Your task to perform on an android device: turn on the 12-hour format for clock Image 0: 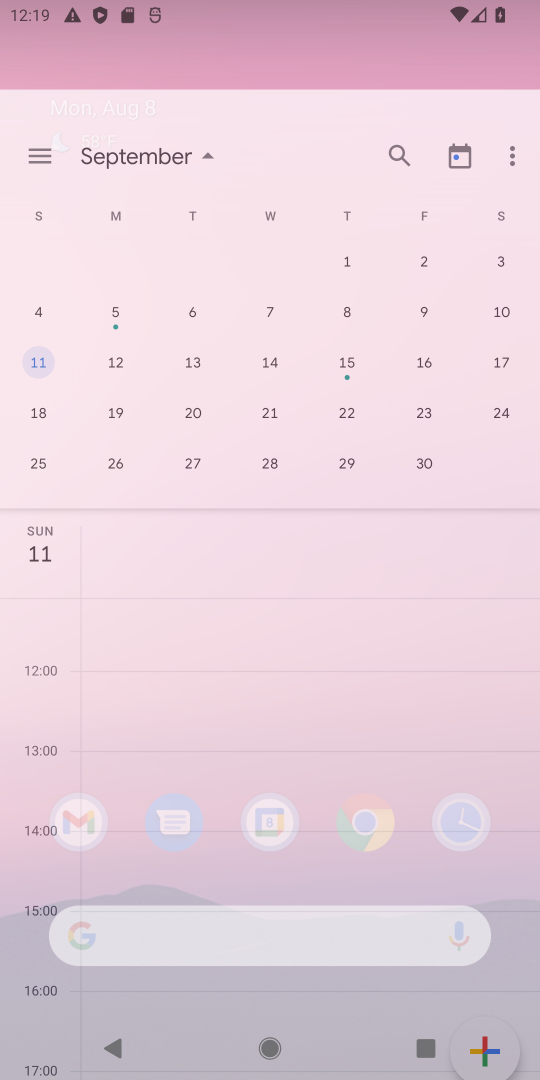
Step 0: press home button
Your task to perform on an android device: turn on the 12-hour format for clock Image 1: 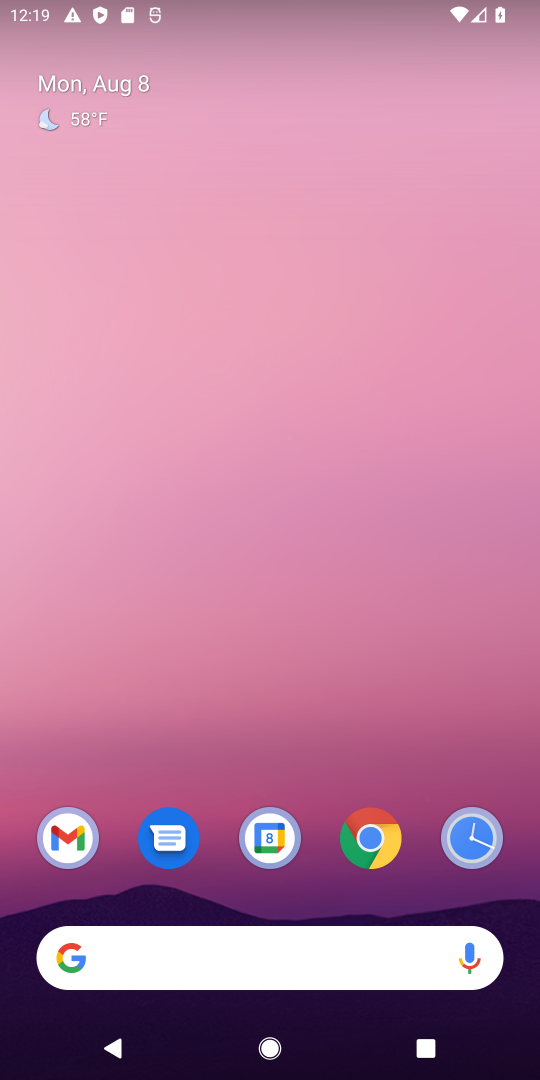
Step 1: drag from (374, 784) to (460, 168)
Your task to perform on an android device: turn on the 12-hour format for clock Image 2: 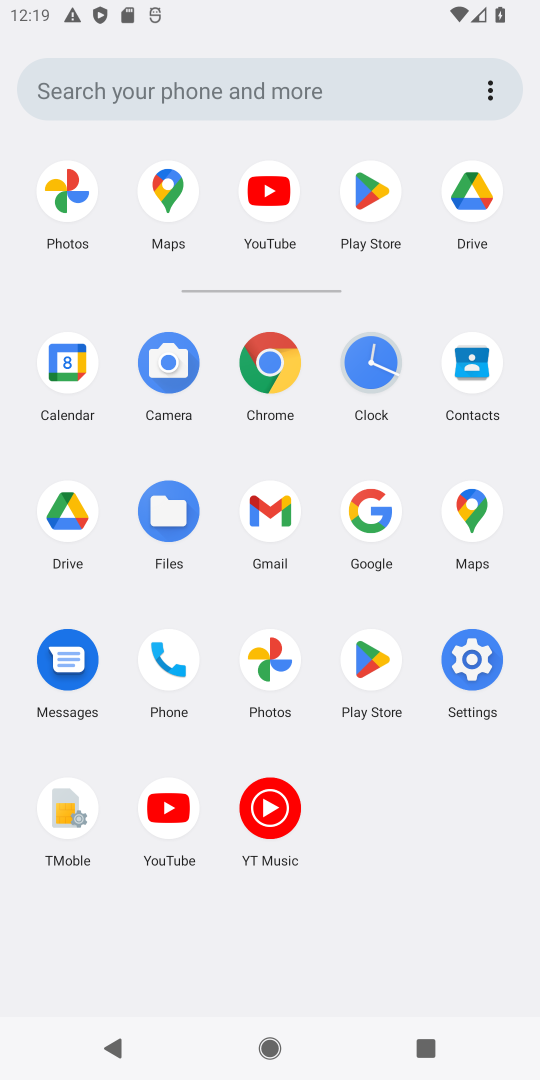
Step 2: click (476, 665)
Your task to perform on an android device: turn on the 12-hour format for clock Image 3: 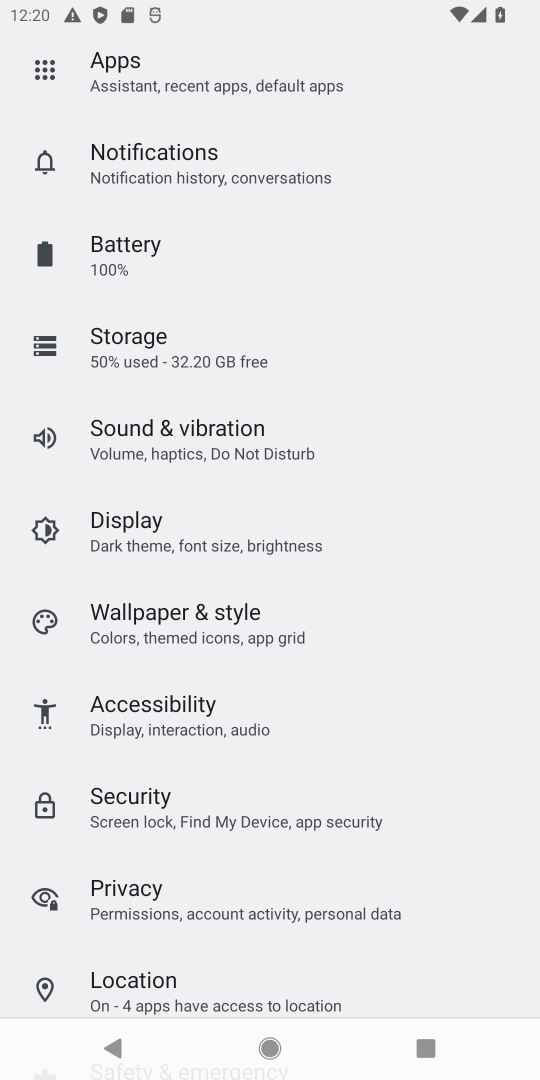
Step 3: drag from (447, 895) to (369, 334)
Your task to perform on an android device: turn on the 12-hour format for clock Image 4: 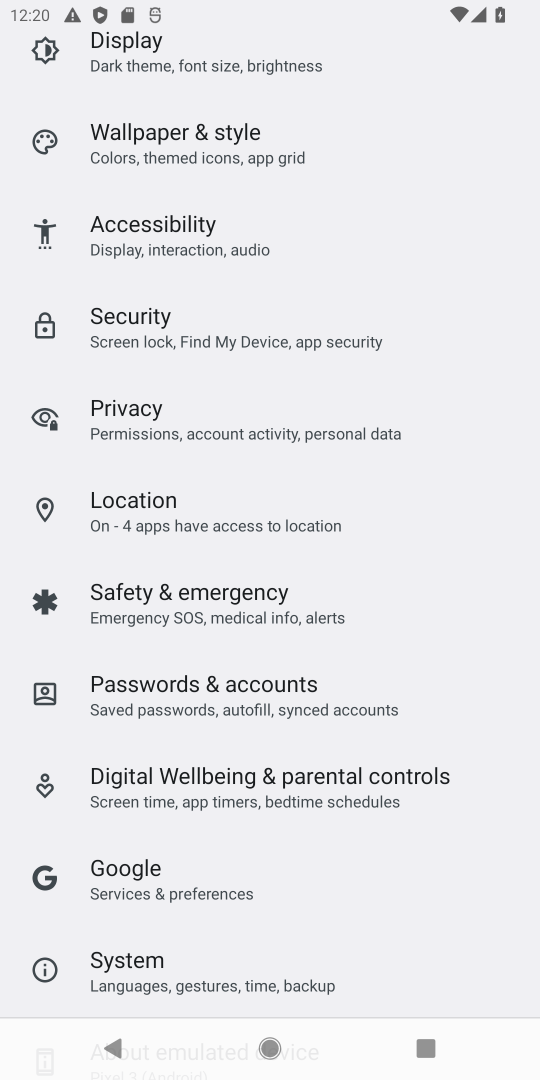
Step 4: click (139, 972)
Your task to perform on an android device: turn on the 12-hour format for clock Image 5: 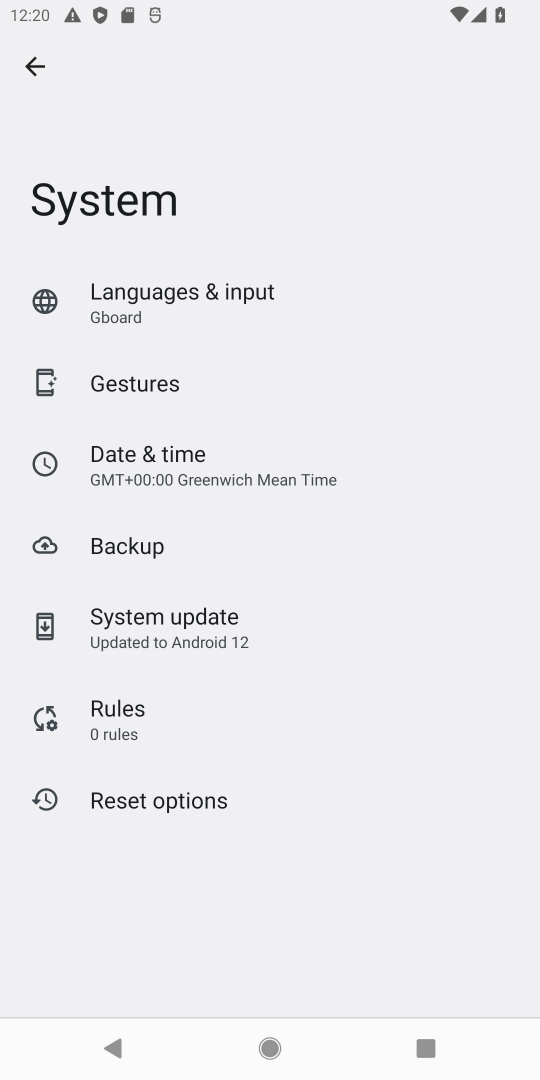
Step 5: click (161, 474)
Your task to perform on an android device: turn on the 12-hour format for clock Image 6: 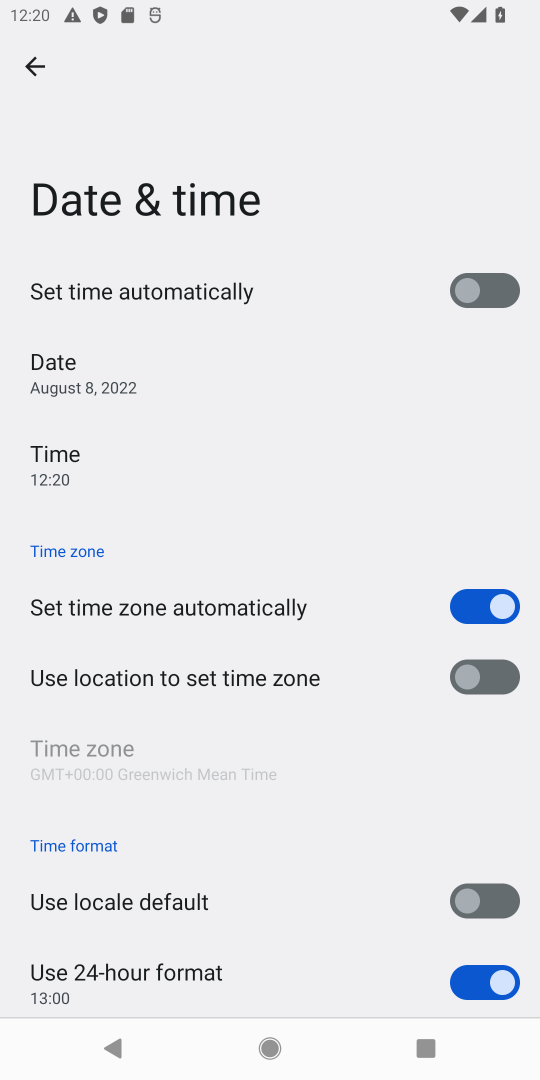
Step 6: click (503, 989)
Your task to perform on an android device: turn on the 12-hour format for clock Image 7: 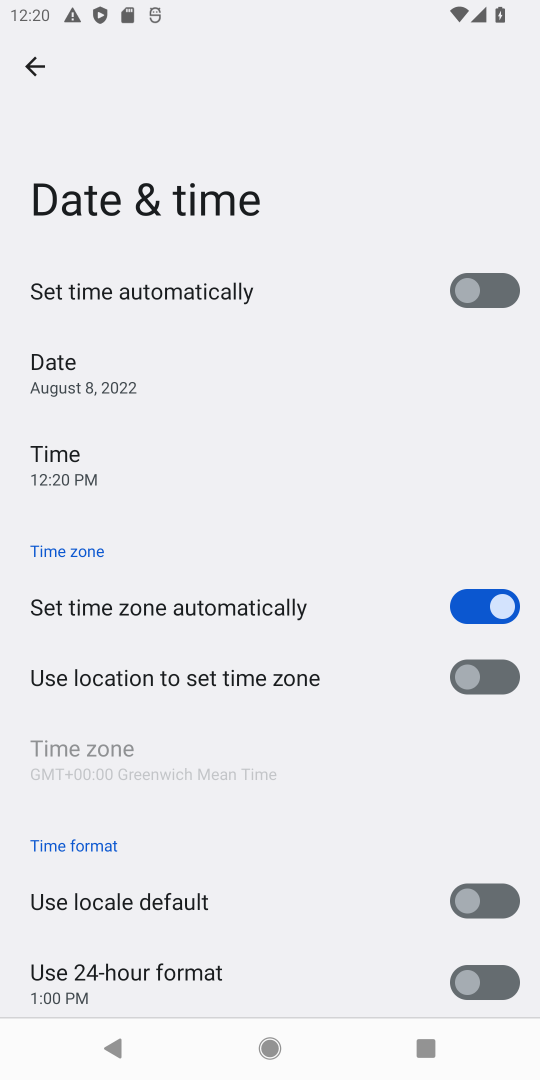
Step 7: task complete